Your task to perform on an android device: Open Wikipedia Image 0: 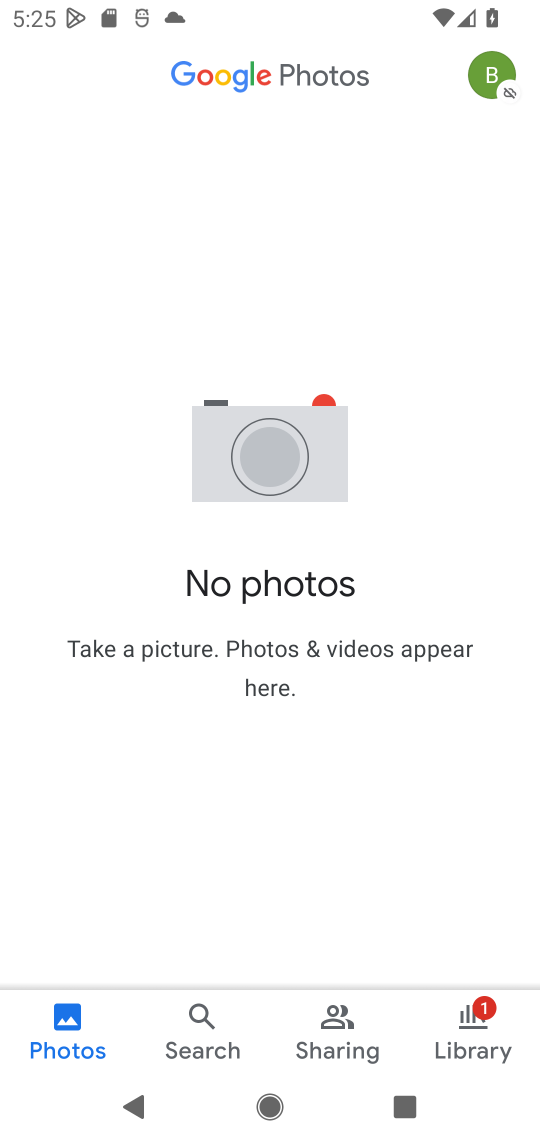
Step 0: press home button
Your task to perform on an android device: Open Wikipedia Image 1: 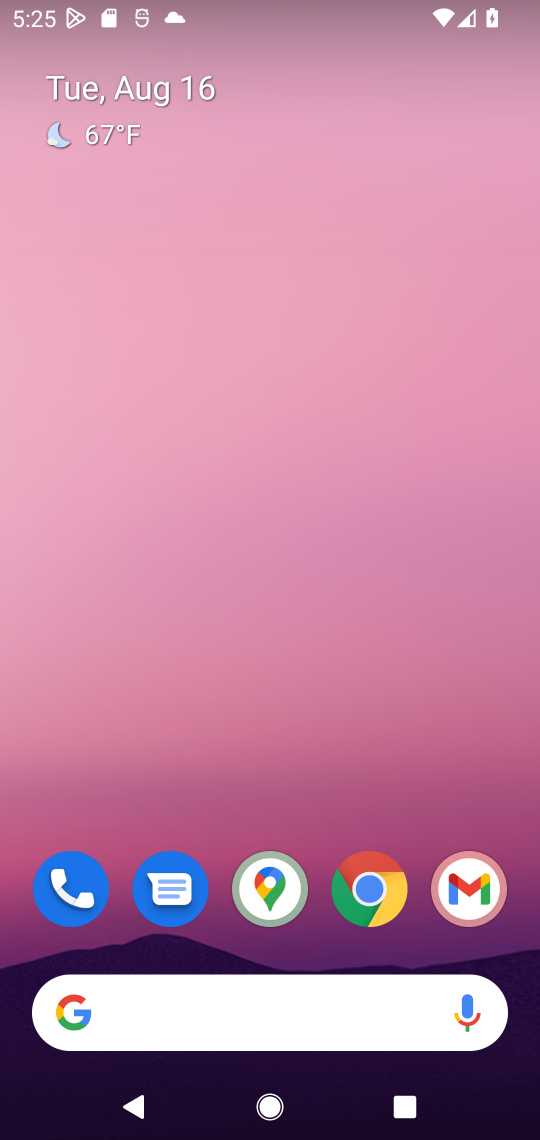
Step 1: drag from (283, 757) to (321, 73)
Your task to perform on an android device: Open Wikipedia Image 2: 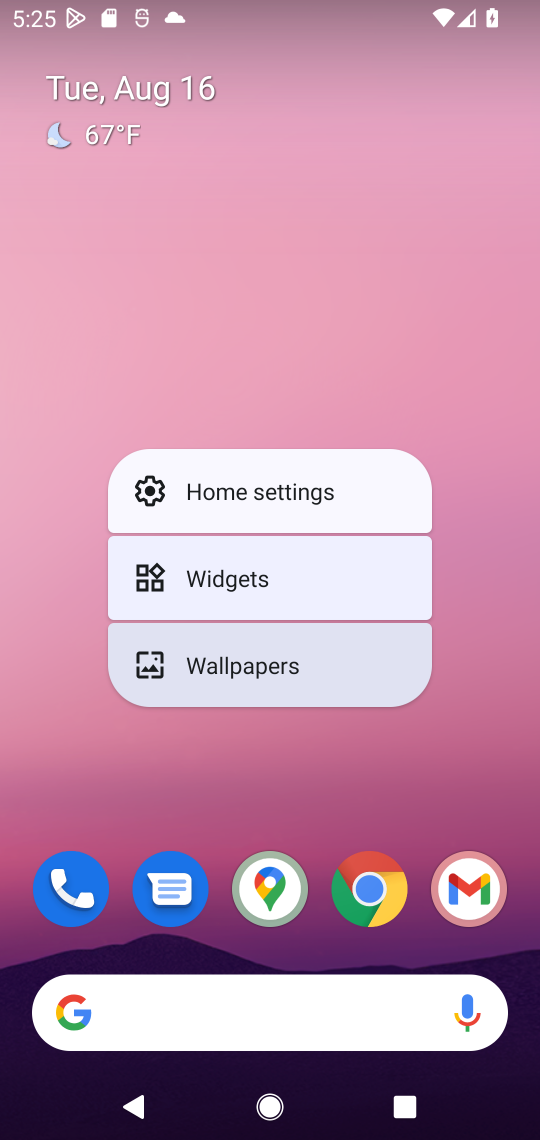
Step 2: click (376, 812)
Your task to perform on an android device: Open Wikipedia Image 3: 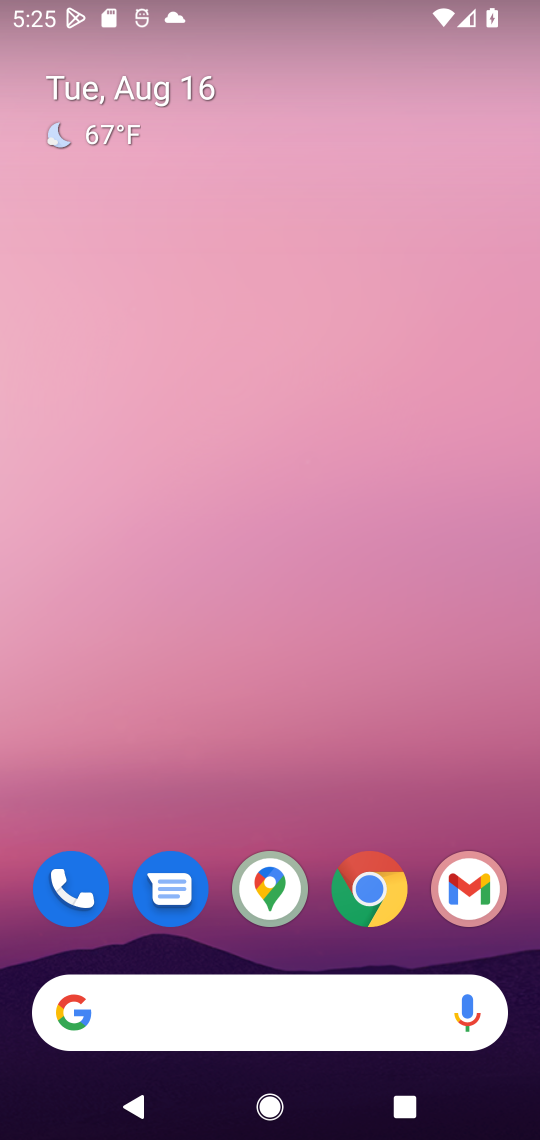
Step 3: click (376, 812)
Your task to perform on an android device: Open Wikipedia Image 4: 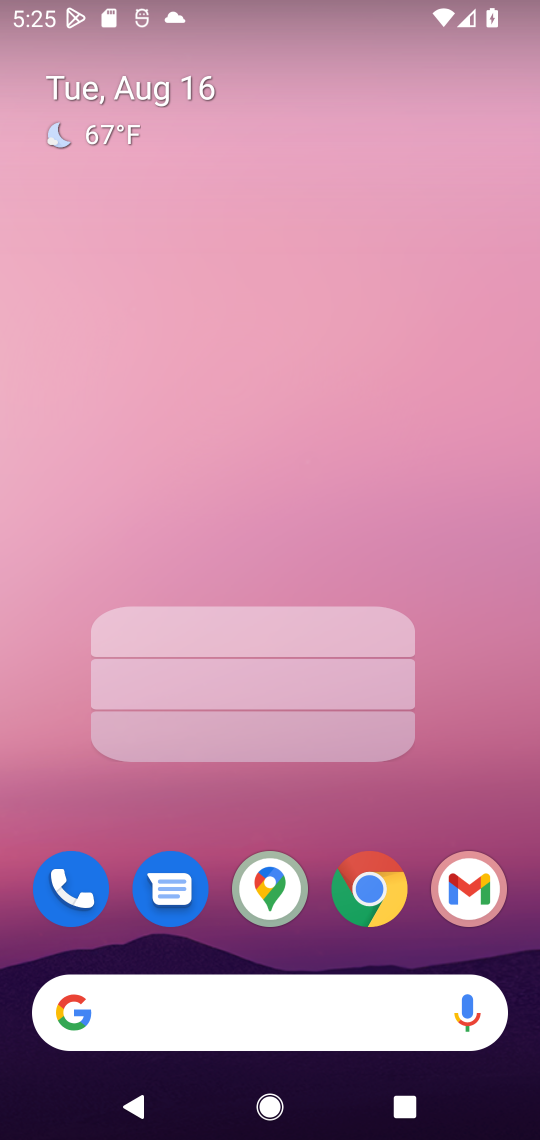
Step 4: drag from (376, 812) to (368, 171)
Your task to perform on an android device: Open Wikipedia Image 5: 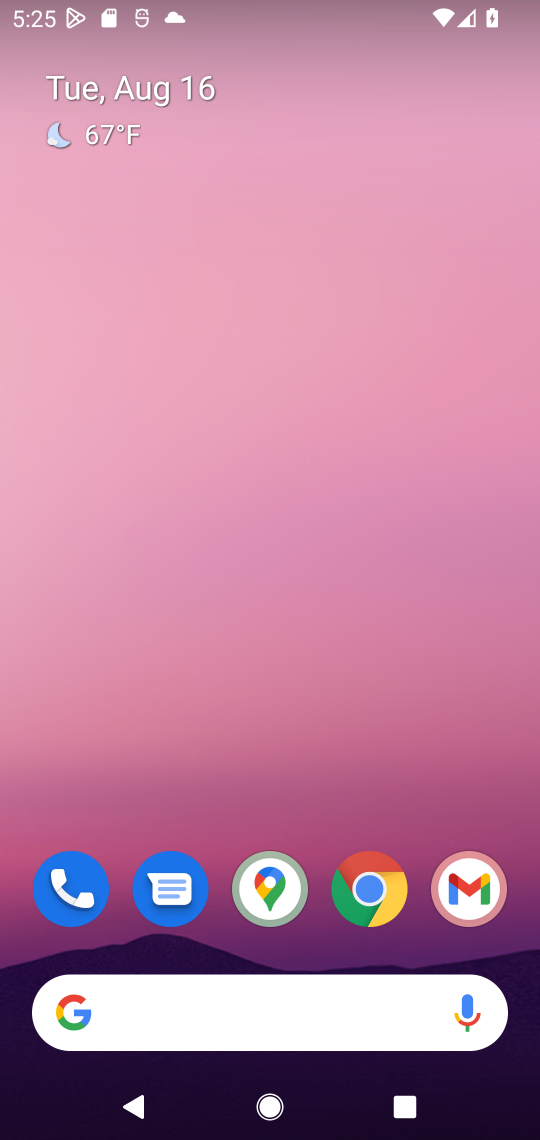
Step 5: drag from (266, 764) to (439, 67)
Your task to perform on an android device: Open Wikipedia Image 6: 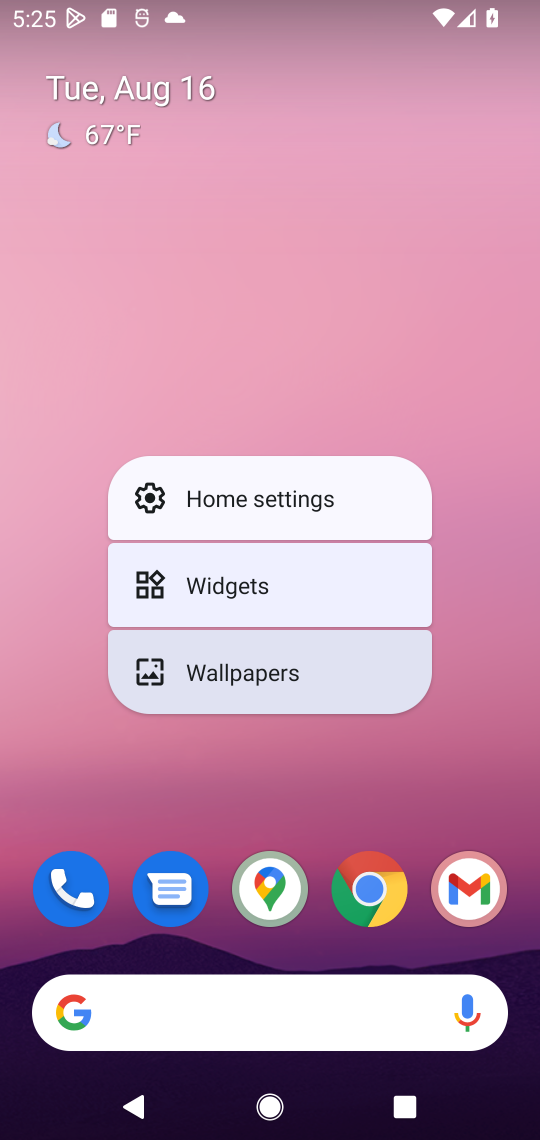
Step 6: click (448, 387)
Your task to perform on an android device: Open Wikipedia Image 7: 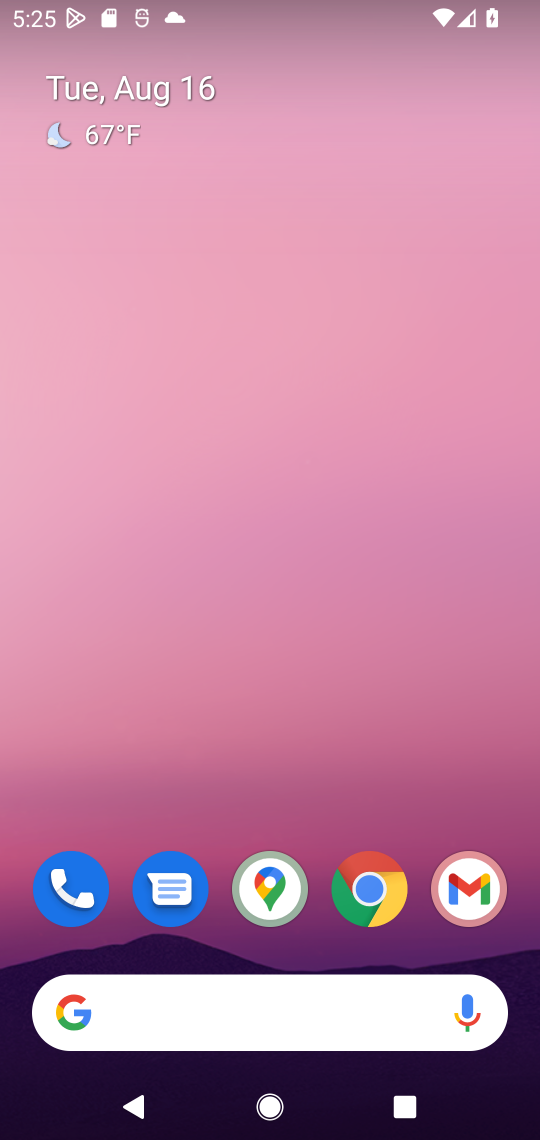
Step 7: click (384, 868)
Your task to perform on an android device: Open Wikipedia Image 8: 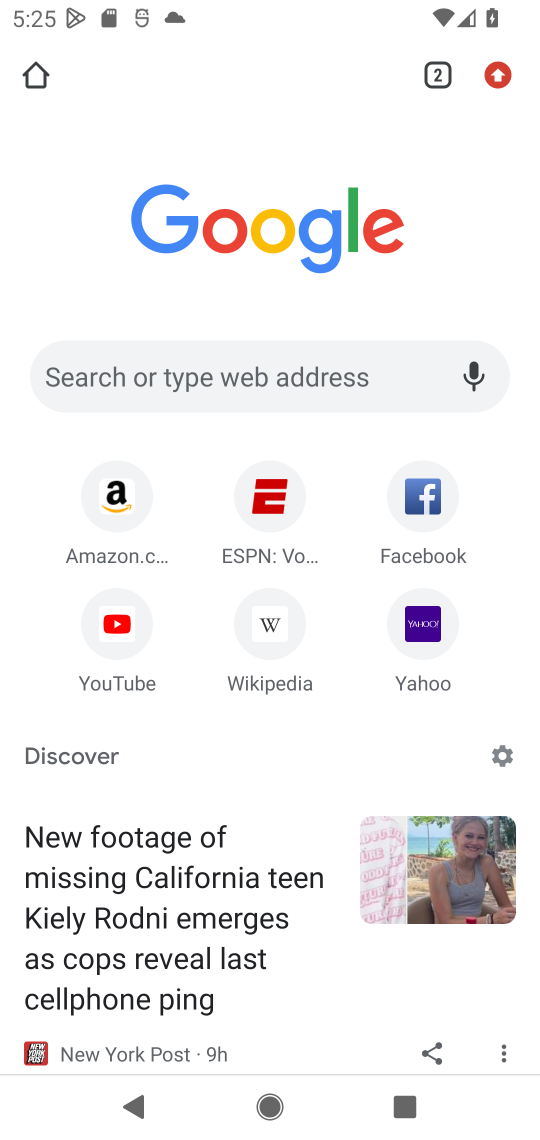
Step 8: task complete